Your task to perform on an android device: Open Wikipedia Image 0: 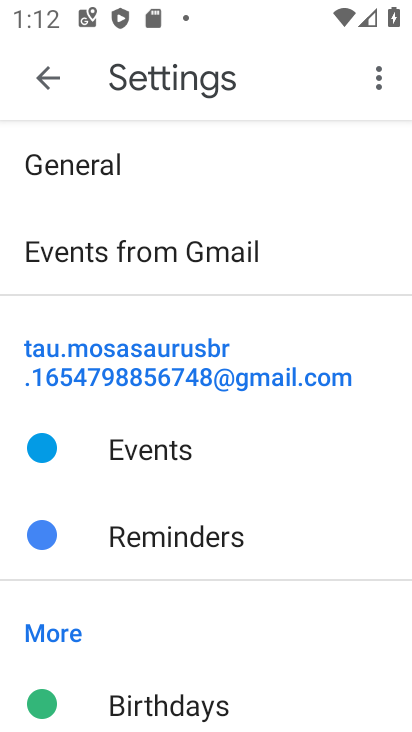
Step 0: press home button
Your task to perform on an android device: Open Wikipedia Image 1: 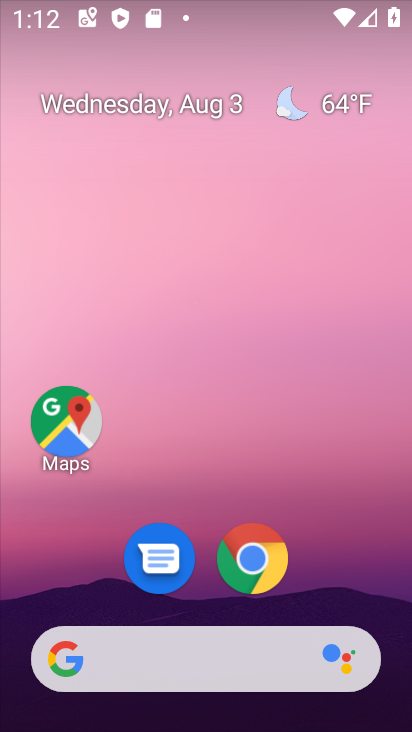
Step 1: click (243, 548)
Your task to perform on an android device: Open Wikipedia Image 2: 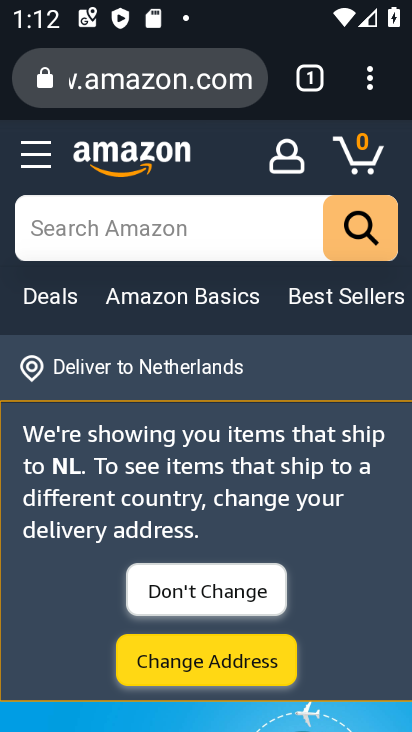
Step 2: click (306, 70)
Your task to perform on an android device: Open Wikipedia Image 3: 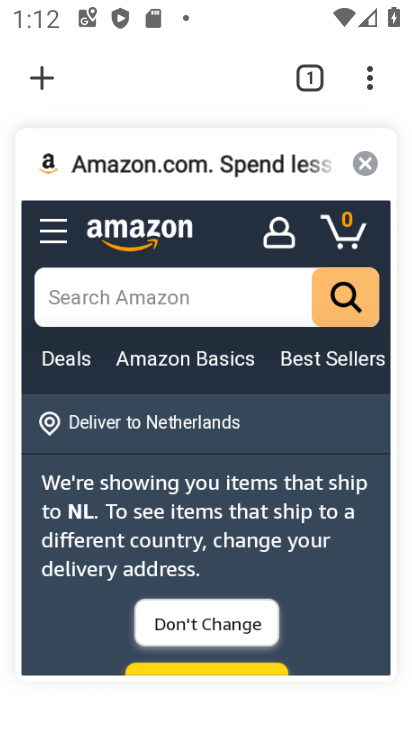
Step 3: click (365, 161)
Your task to perform on an android device: Open Wikipedia Image 4: 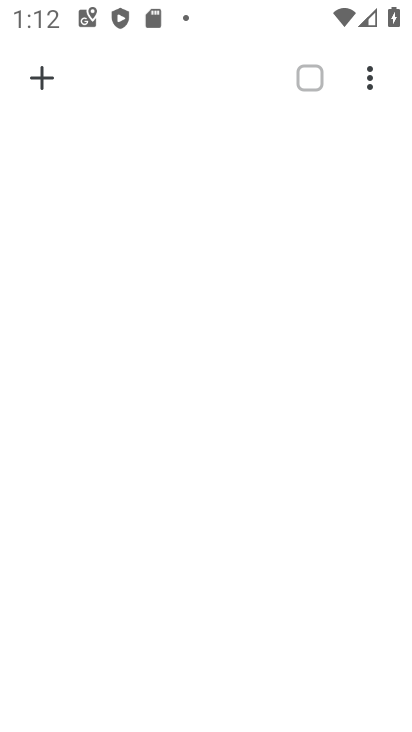
Step 4: click (38, 76)
Your task to perform on an android device: Open Wikipedia Image 5: 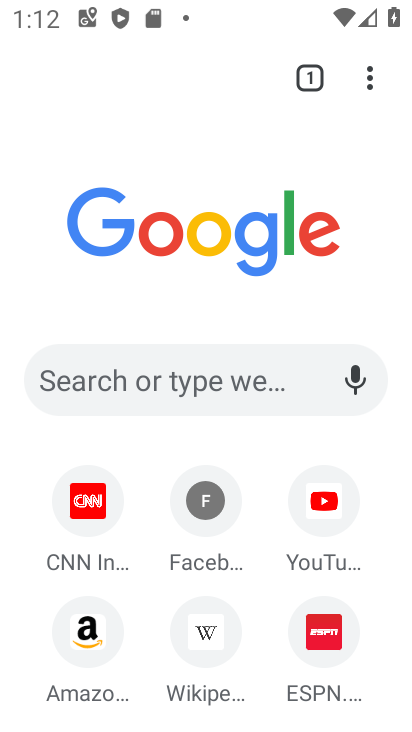
Step 5: click (205, 654)
Your task to perform on an android device: Open Wikipedia Image 6: 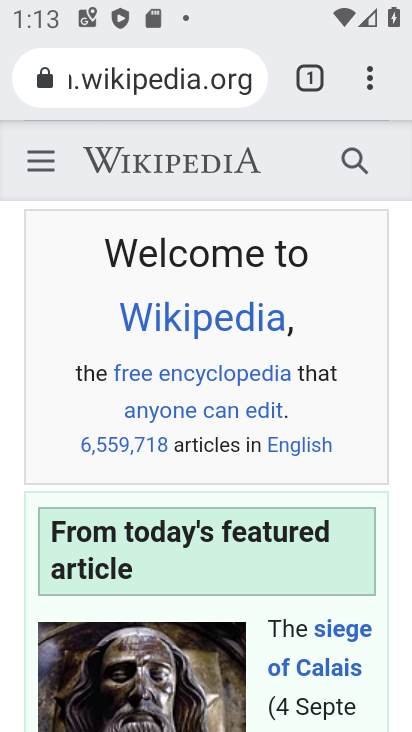
Step 6: task complete